Your task to perform on an android device: turn off improve location accuracy Image 0: 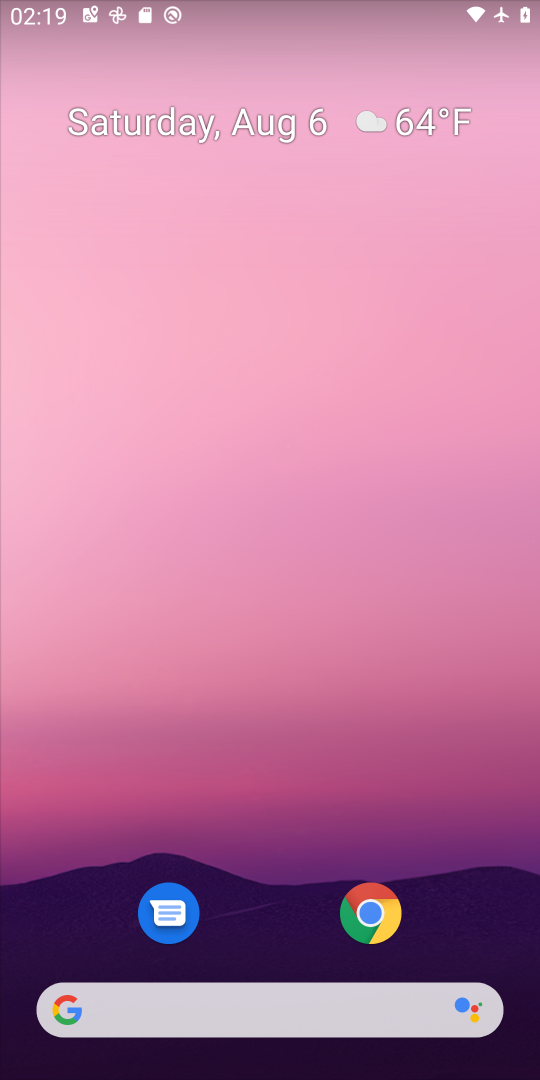
Step 0: drag from (463, 928) to (456, 127)
Your task to perform on an android device: turn off improve location accuracy Image 1: 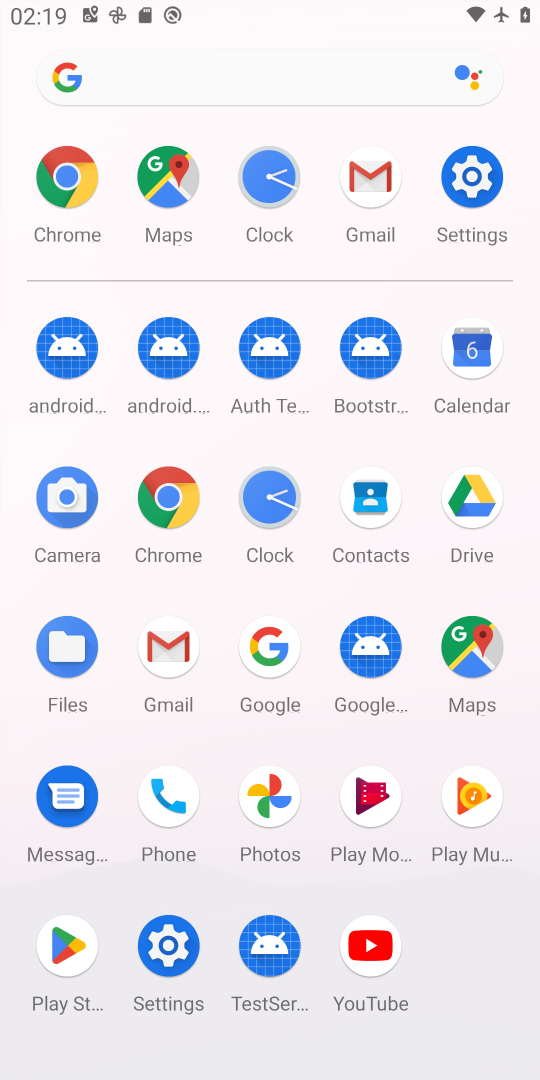
Step 1: click (469, 179)
Your task to perform on an android device: turn off improve location accuracy Image 2: 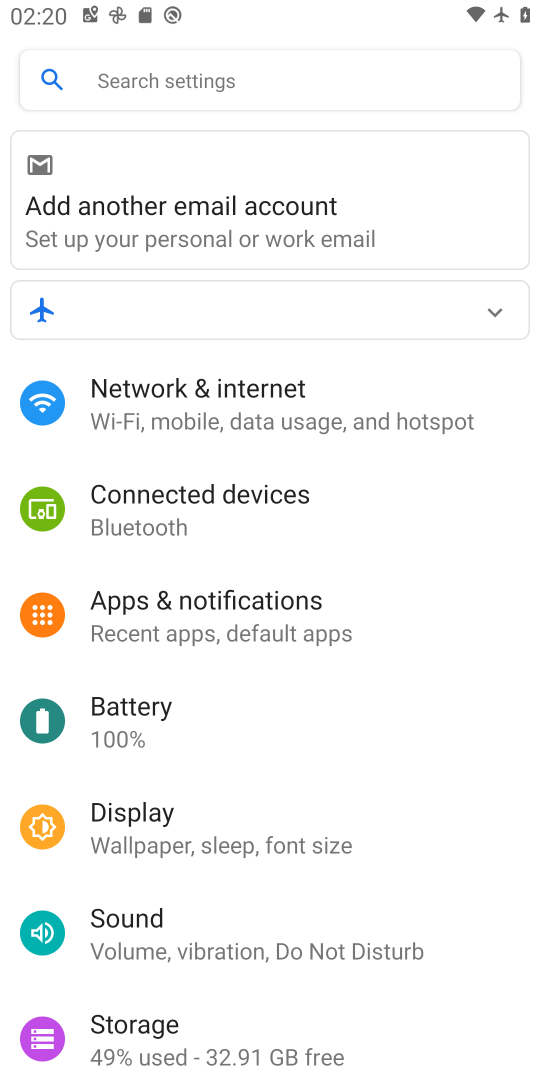
Step 2: drag from (441, 733) to (475, 529)
Your task to perform on an android device: turn off improve location accuracy Image 3: 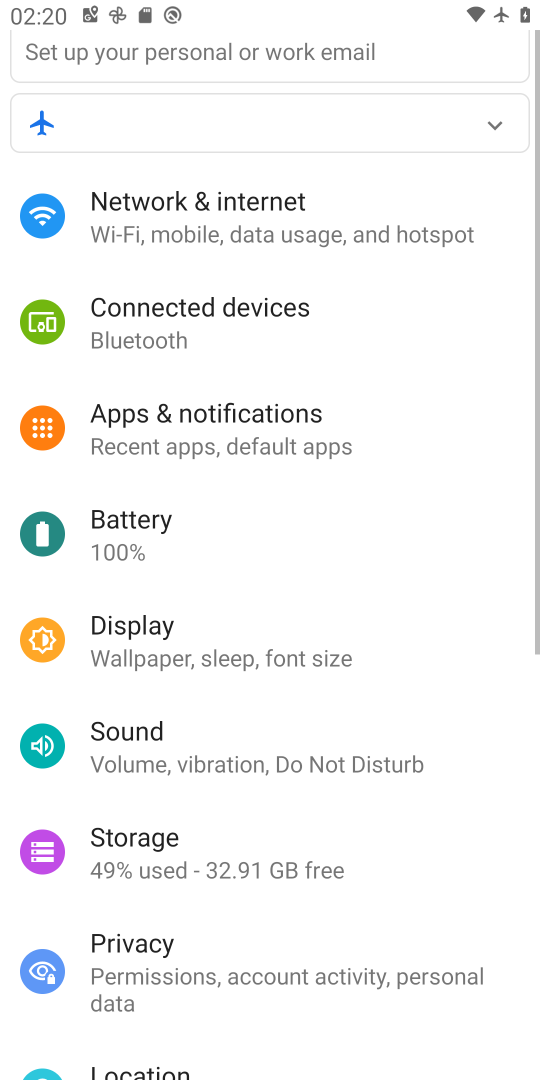
Step 3: drag from (459, 764) to (480, 576)
Your task to perform on an android device: turn off improve location accuracy Image 4: 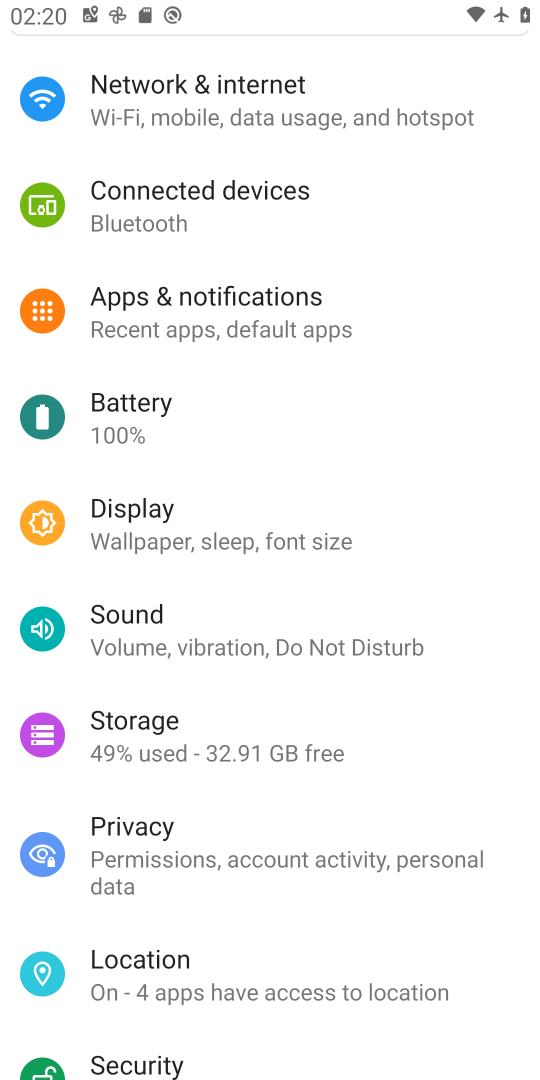
Step 4: drag from (479, 812) to (496, 589)
Your task to perform on an android device: turn off improve location accuracy Image 5: 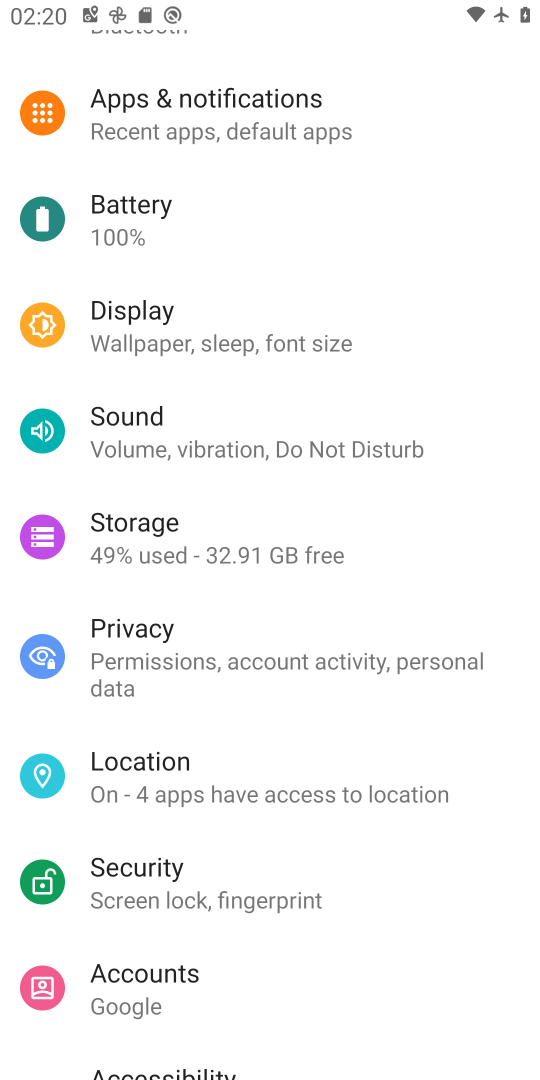
Step 5: drag from (461, 865) to (473, 604)
Your task to perform on an android device: turn off improve location accuracy Image 6: 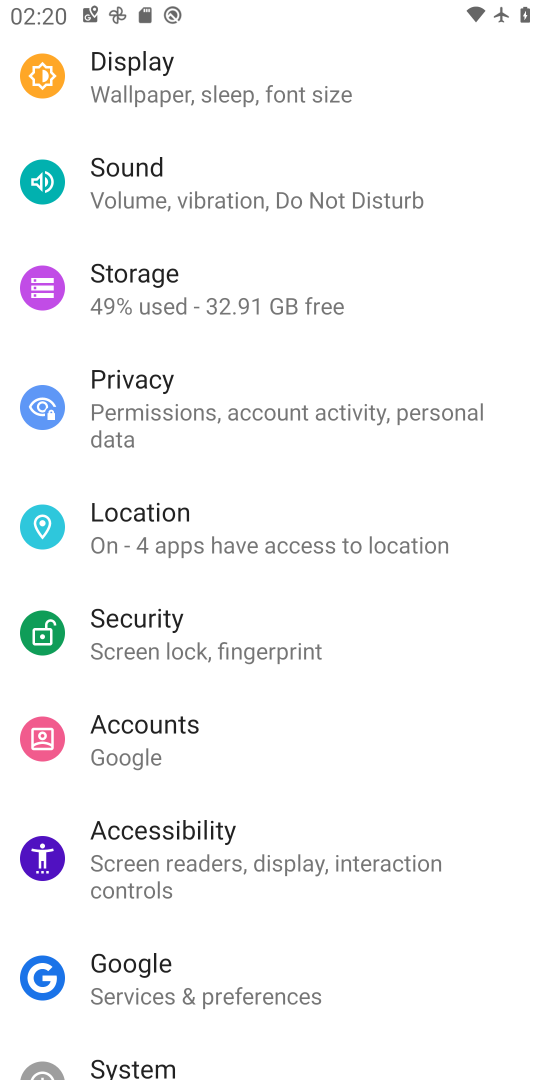
Step 6: click (275, 546)
Your task to perform on an android device: turn off improve location accuracy Image 7: 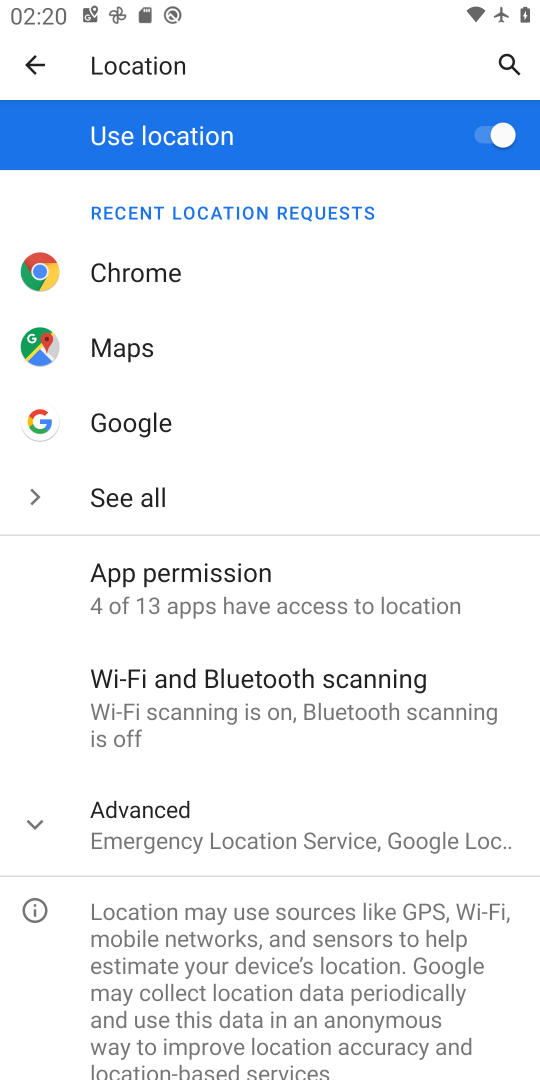
Step 7: click (246, 829)
Your task to perform on an android device: turn off improve location accuracy Image 8: 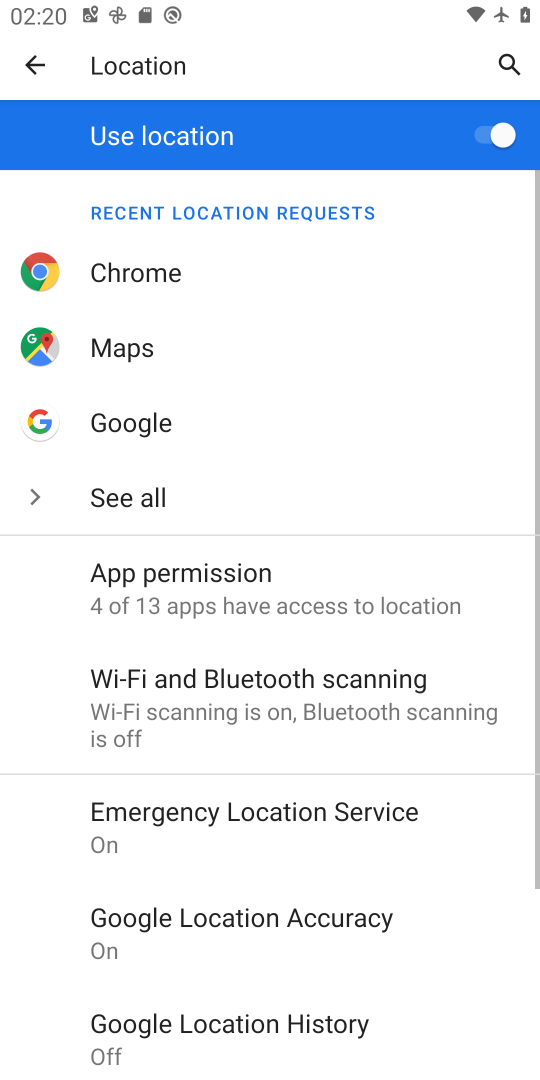
Step 8: drag from (270, 901) to (277, 595)
Your task to perform on an android device: turn off improve location accuracy Image 9: 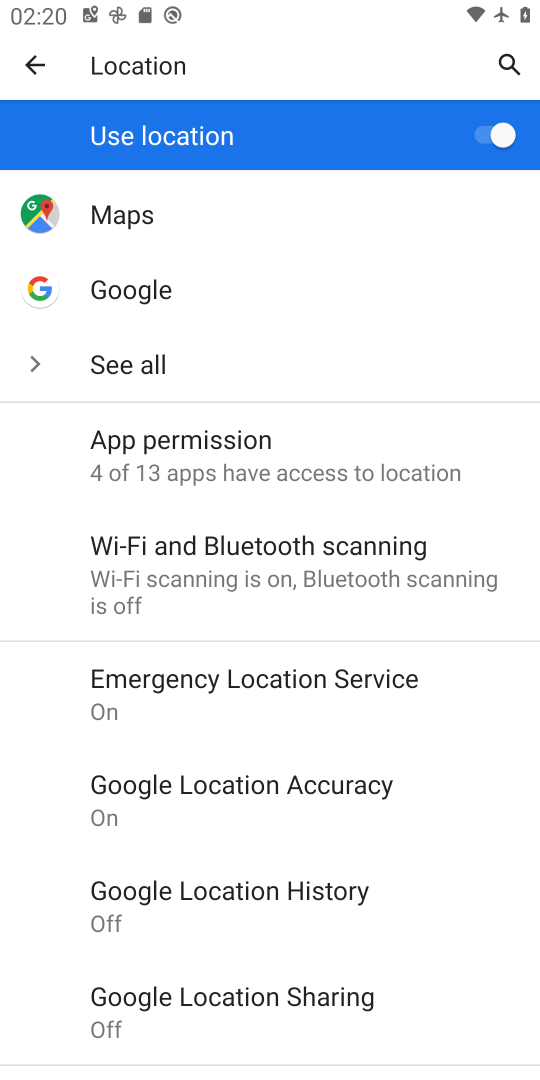
Step 9: drag from (257, 892) to (257, 655)
Your task to perform on an android device: turn off improve location accuracy Image 10: 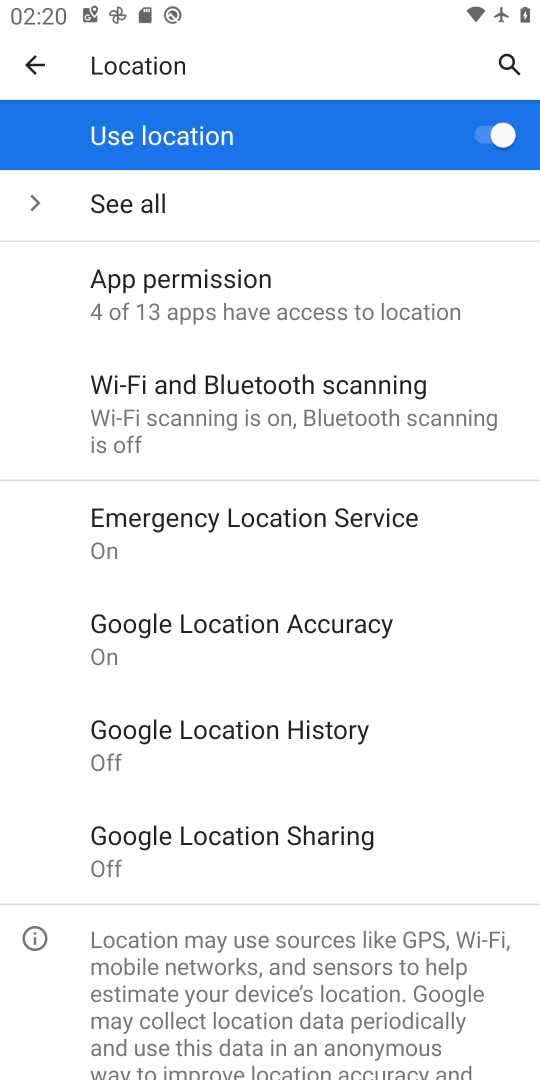
Step 10: click (247, 663)
Your task to perform on an android device: turn off improve location accuracy Image 11: 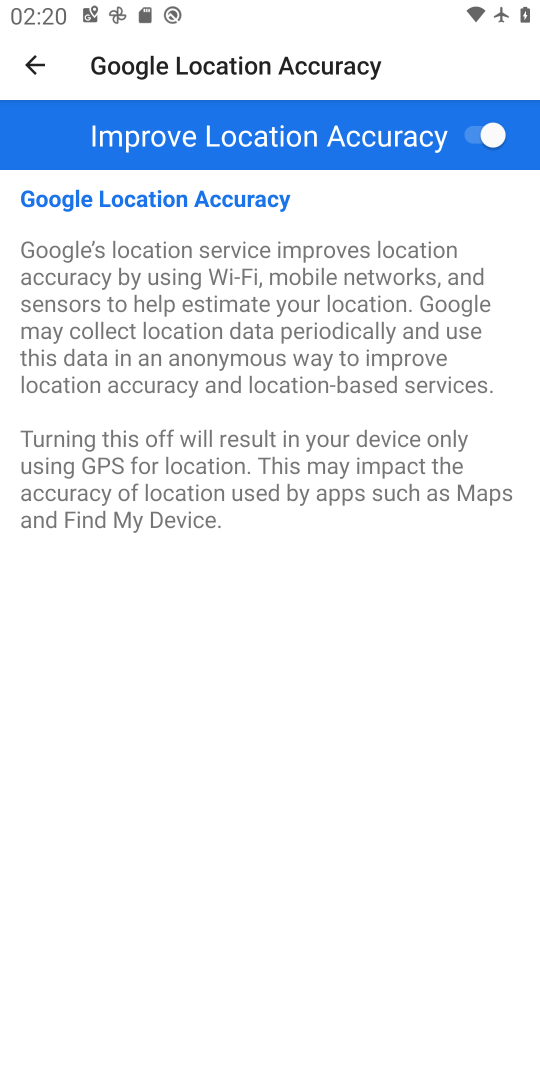
Step 11: click (484, 137)
Your task to perform on an android device: turn off improve location accuracy Image 12: 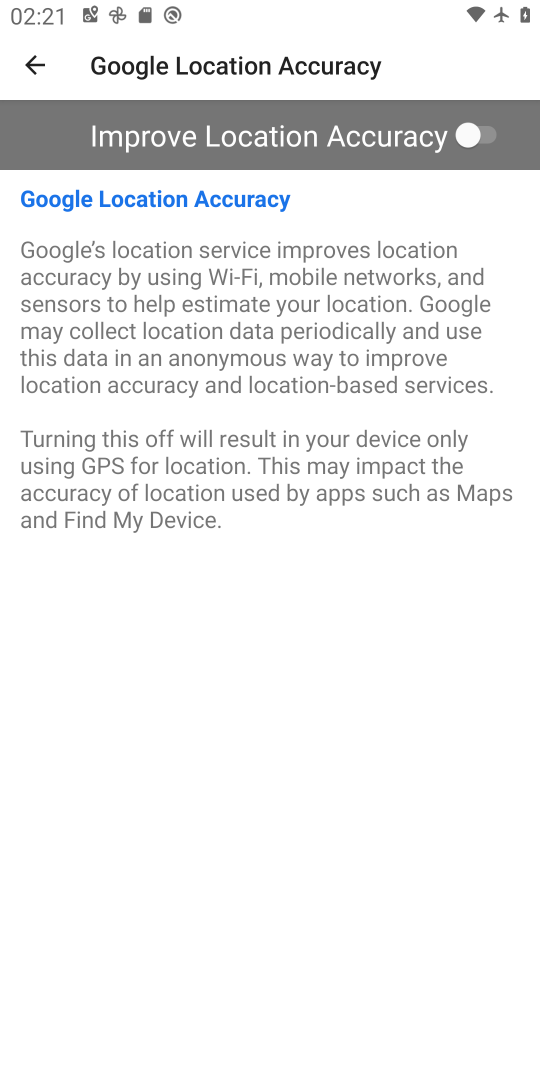
Step 12: task complete